Your task to perform on an android device: Show me the alarms in the clock app Image 0: 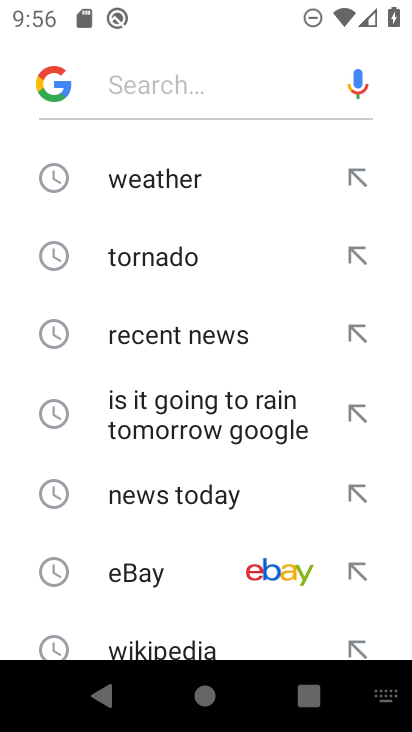
Step 0: press home button
Your task to perform on an android device: Show me the alarms in the clock app Image 1: 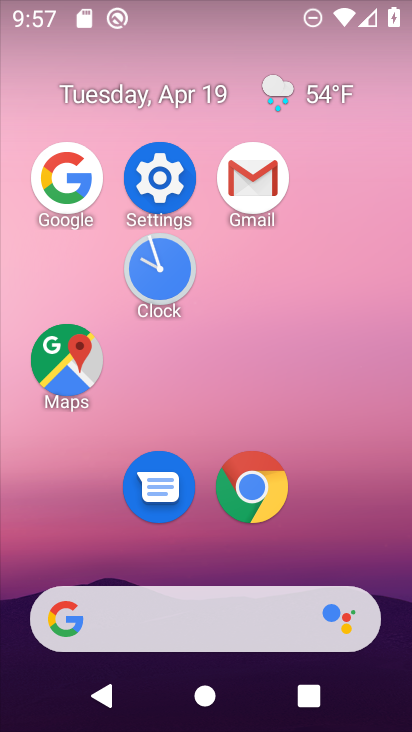
Step 1: click (163, 284)
Your task to perform on an android device: Show me the alarms in the clock app Image 2: 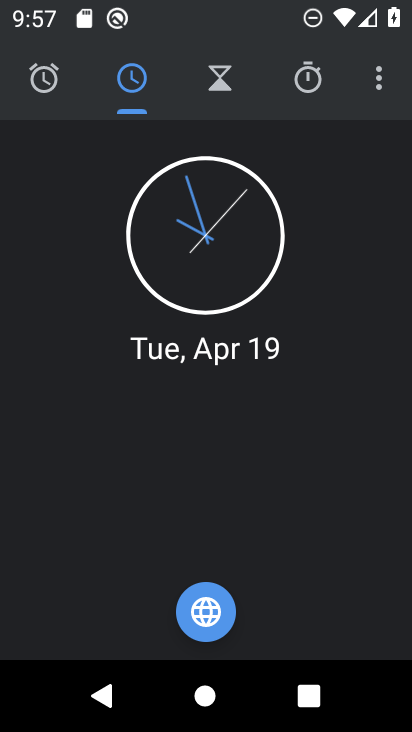
Step 2: click (35, 79)
Your task to perform on an android device: Show me the alarms in the clock app Image 3: 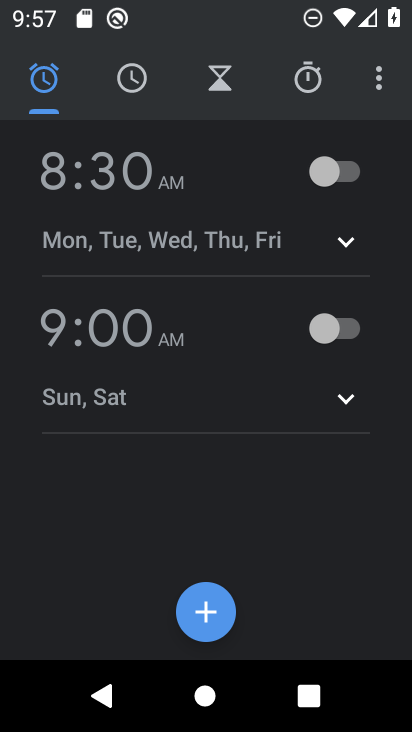
Step 3: task complete